Your task to perform on an android device: Turn on the flashlight Image 0: 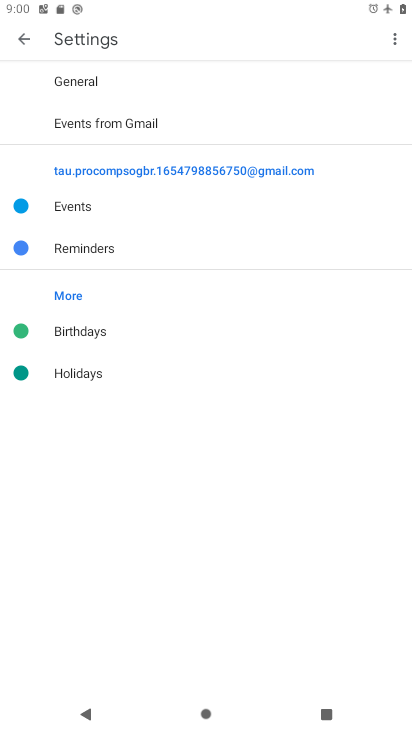
Step 0: press home button
Your task to perform on an android device: Turn on the flashlight Image 1: 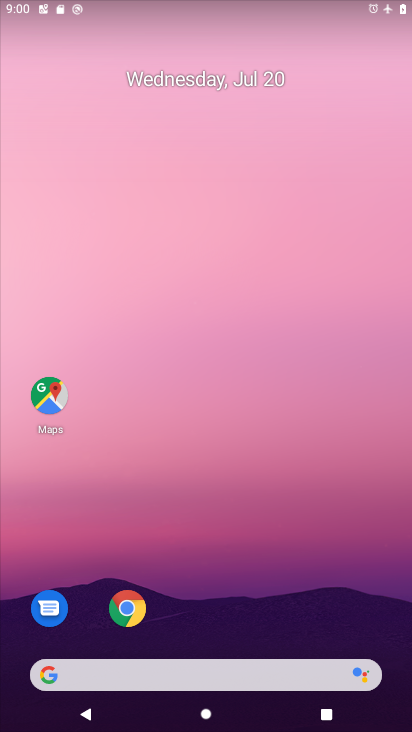
Step 1: drag from (248, 623) to (267, 82)
Your task to perform on an android device: Turn on the flashlight Image 2: 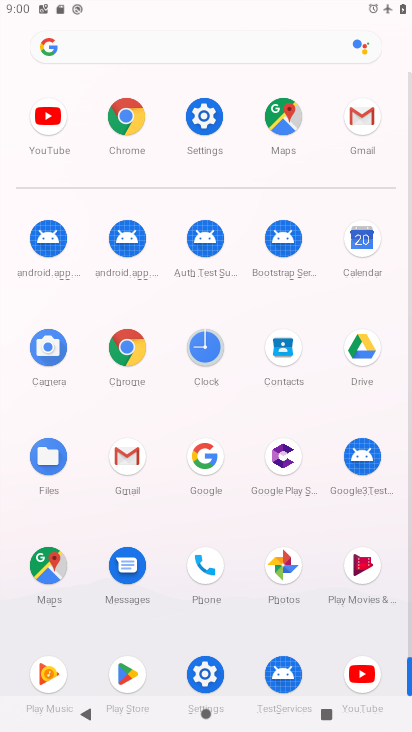
Step 2: click (209, 129)
Your task to perform on an android device: Turn on the flashlight Image 3: 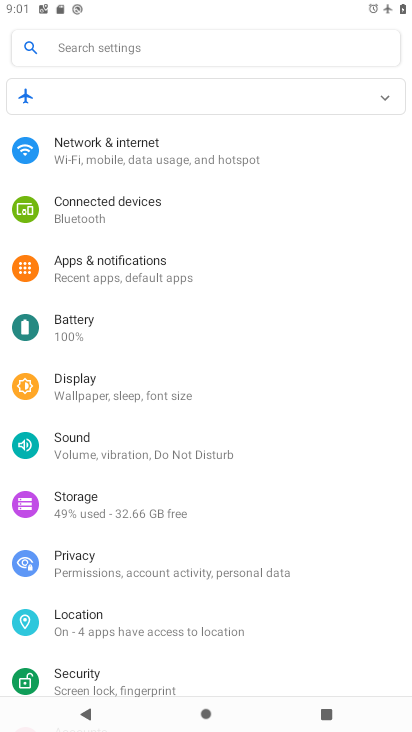
Step 3: task complete